Your task to perform on an android device: Is it going to rain tomorrow? Image 0: 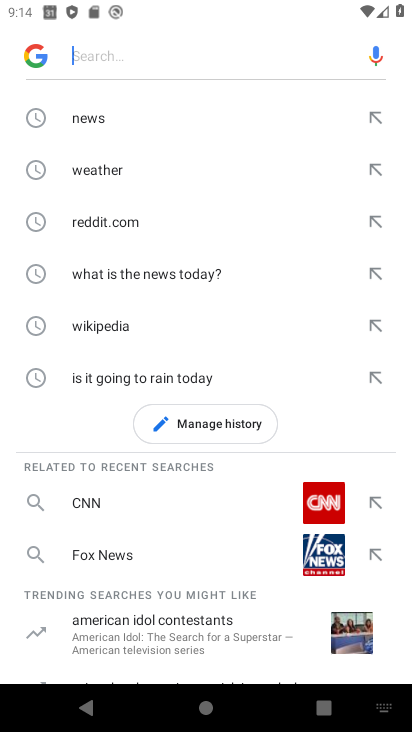
Step 0: press home button
Your task to perform on an android device: Is it going to rain tomorrow? Image 1: 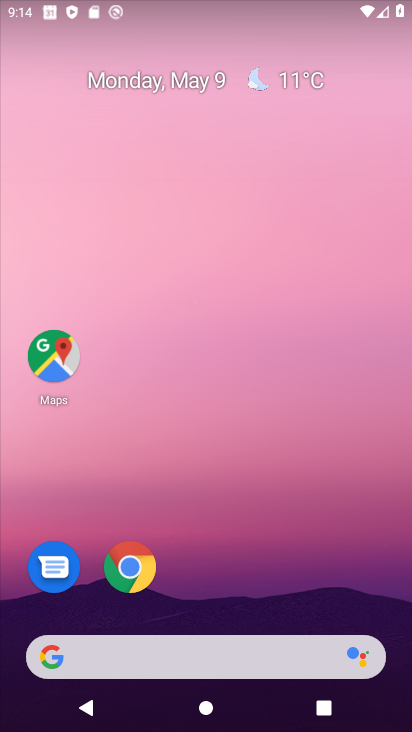
Step 1: click (299, 66)
Your task to perform on an android device: Is it going to rain tomorrow? Image 2: 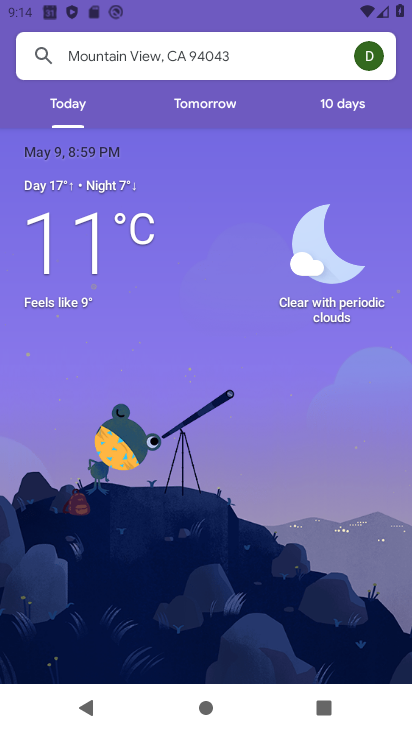
Step 2: task complete